Your task to perform on an android device: create a new album in the google photos Image 0: 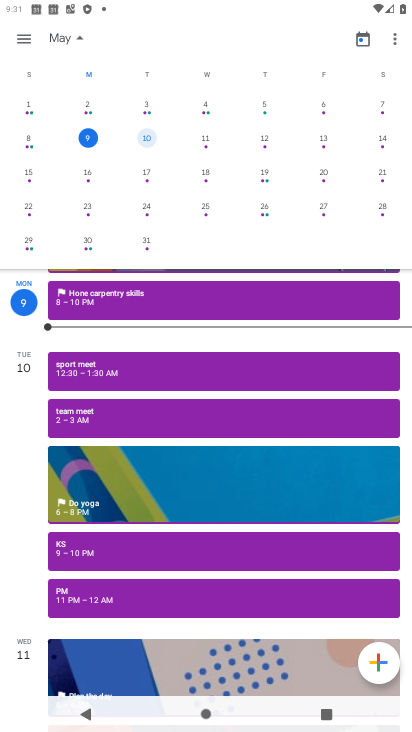
Step 0: press home button
Your task to perform on an android device: create a new album in the google photos Image 1: 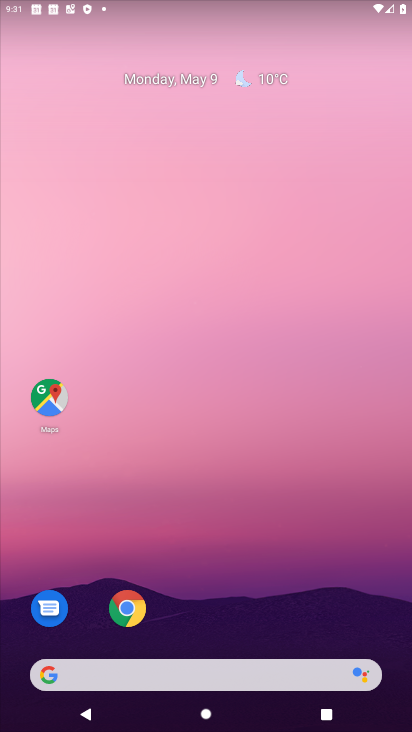
Step 1: drag from (302, 547) to (244, 38)
Your task to perform on an android device: create a new album in the google photos Image 2: 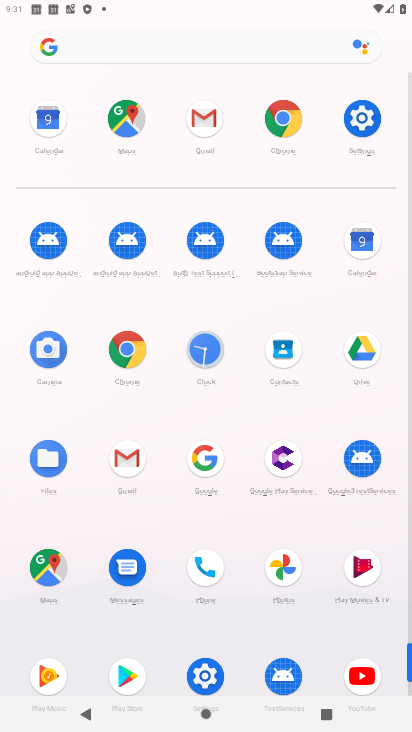
Step 2: click (270, 551)
Your task to perform on an android device: create a new album in the google photos Image 3: 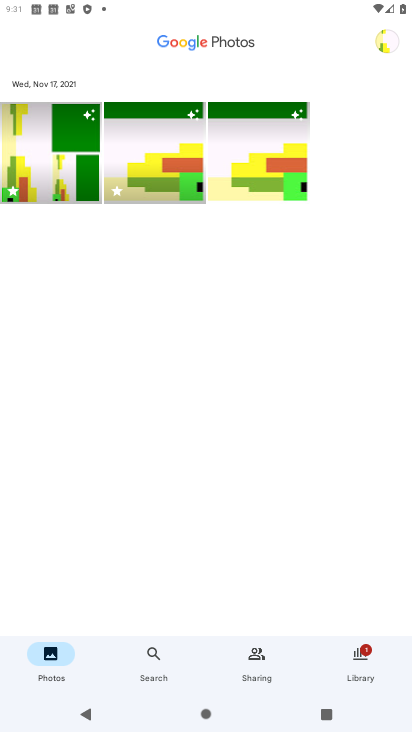
Step 3: task complete